Your task to perform on an android device: Open calendar and show me the first week of next month Image 0: 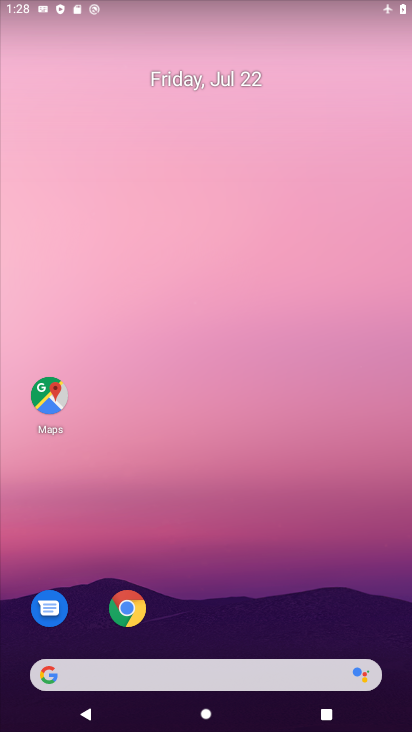
Step 0: drag from (233, 713) to (232, 61)
Your task to perform on an android device: Open calendar and show me the first week of next month Image 1: 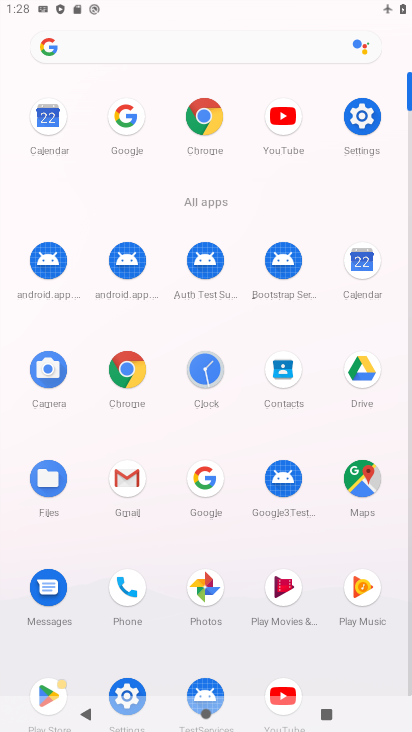
Step 1: click (359, 252)
Your task to perform on an android device: Open calendar and show me the first week of next month Image 2: 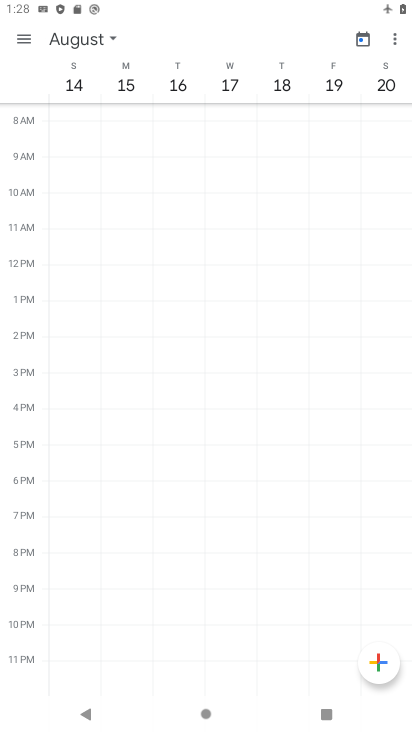
Step 2: click (117, 39)
Your task to perform on an android device: Open calendar and show me the first week of next month Image 3: 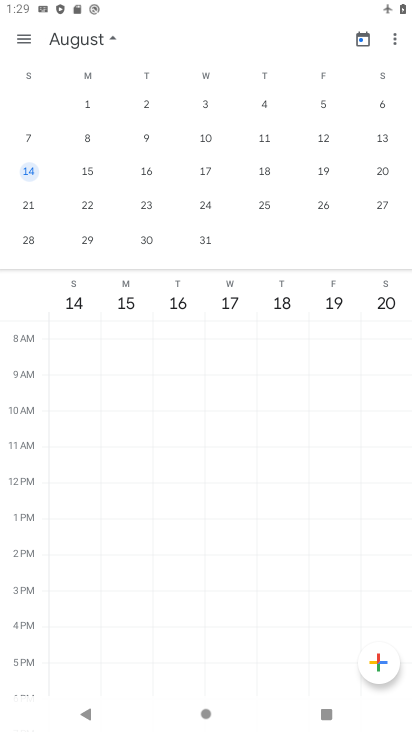
Step 3: click (83, 104)
Your task to perform on an android device: Open calendar and show me the first week of next month Image 4: 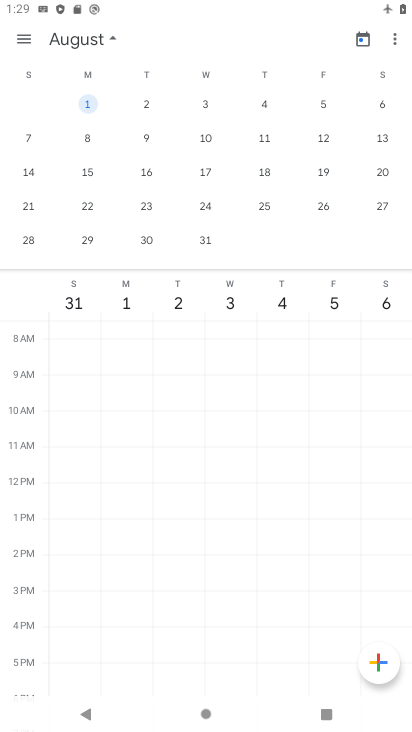
Step 4: click (27, 48)
Your task to perform on an android device: Open calendar and show me the first week of next month Image 5: 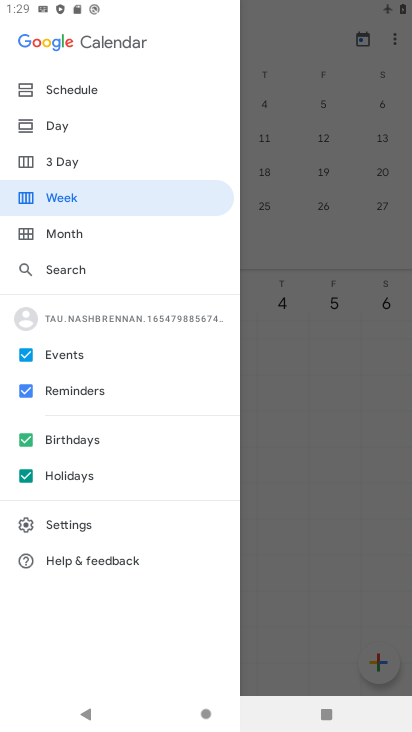
Step 5: click (75, 201)
Your task to perform on an android device: Open calendar and show me the first week of next month Image 6: 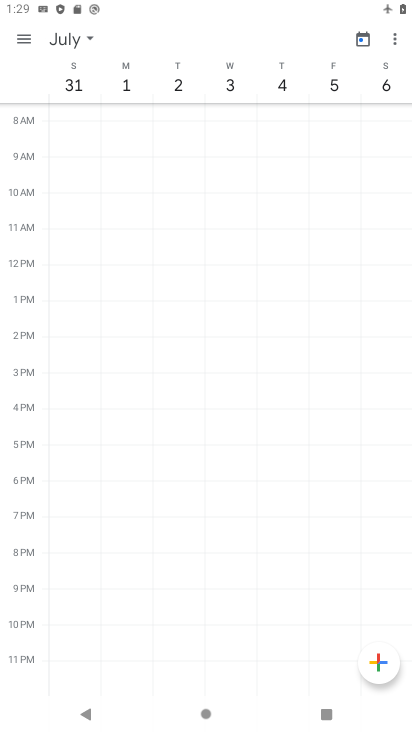
Step 6: task complete